Your task to perform on an android device: see sites visited before in the chrome app Image 0: 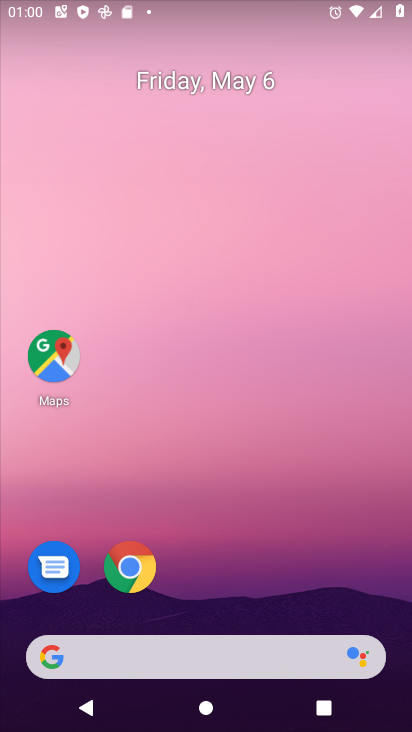
Step 0: click (129, 565)
Your task to perform on an android device: see sites visited before in the chrome app Image 1: 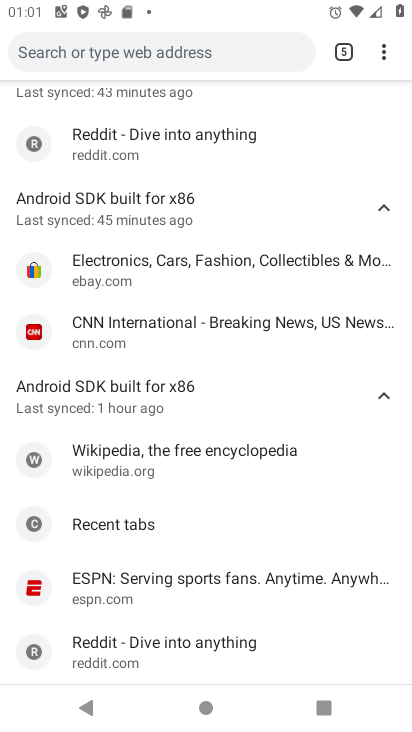
Step 1: click (379, 52)
Your task to perform on an android device: see sites visited before in the chrome app Image 2: 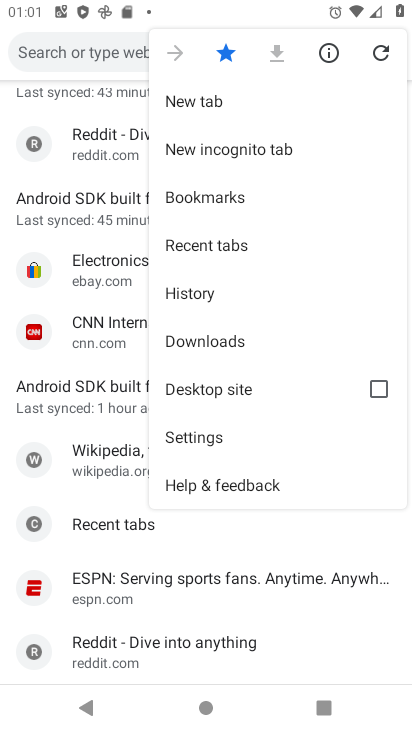
Step 2: click (194, 237)
Your task to perform on an android device: see sites visited before in the chrome app Image 3: 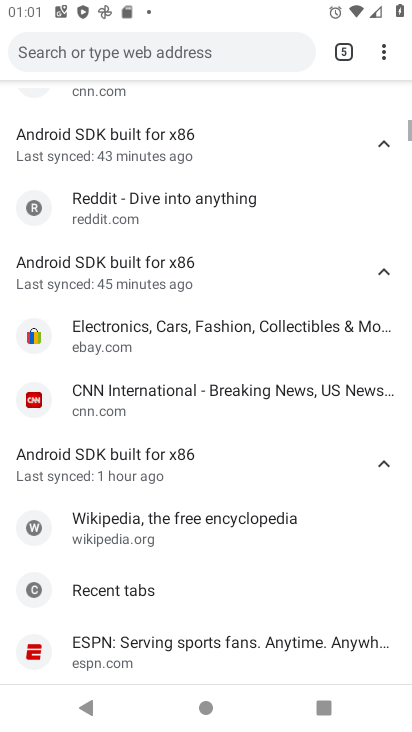
Step 3: task complete